Your task to perform on an android device: Do I have any events this weekend? Image 0: 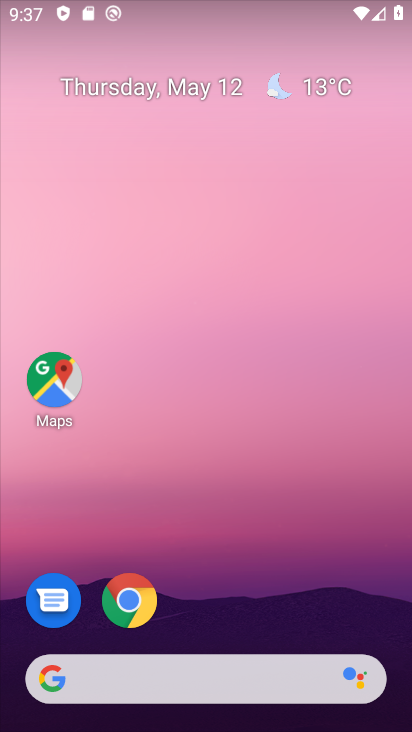
Step 0: drag from (233, 566) to (312, 12)
Your task to perform on an android device: Do I have any events this weekend? Image 1: 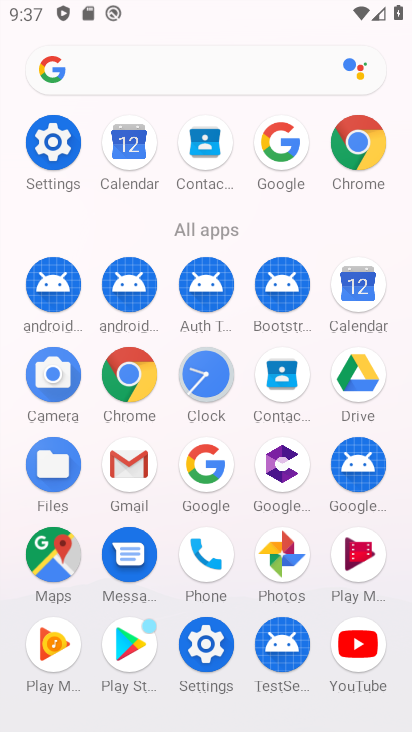
Step 1: click (364, 299)
Your task to perform on an android device: Do I have any events this weekend? Image 2: 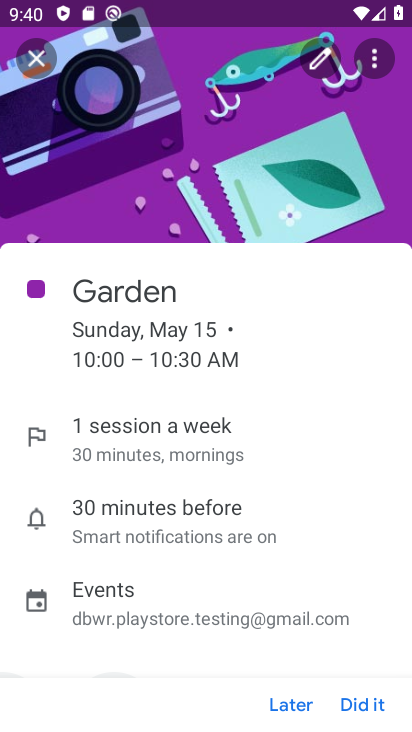
Step 2: click (285, 702)
Your task to perform on an android device: Do I have any events this weekend? Image 3: 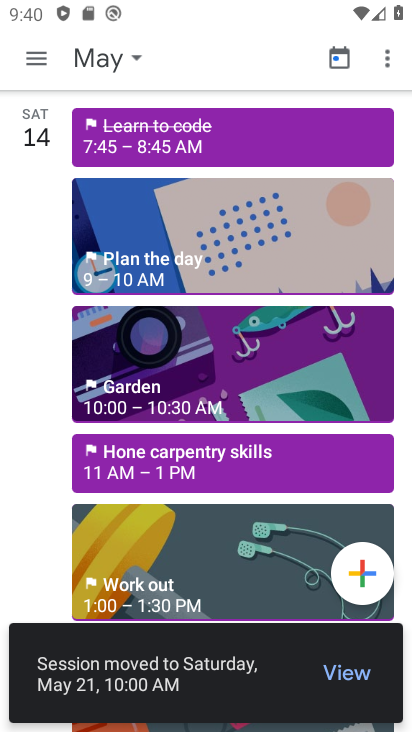
Step 3: drag from (221, 617) to (285, 138)
Your task to perform on an android device: Do I have any events this weekend? Image 4: 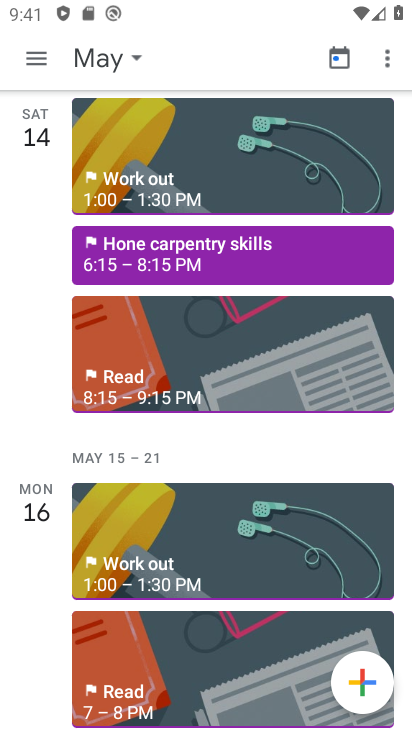
Step 4: drag from (250, 320) to (227, 590)
Your task to perform on an android device: Do I have any events this weekend? Image 5: 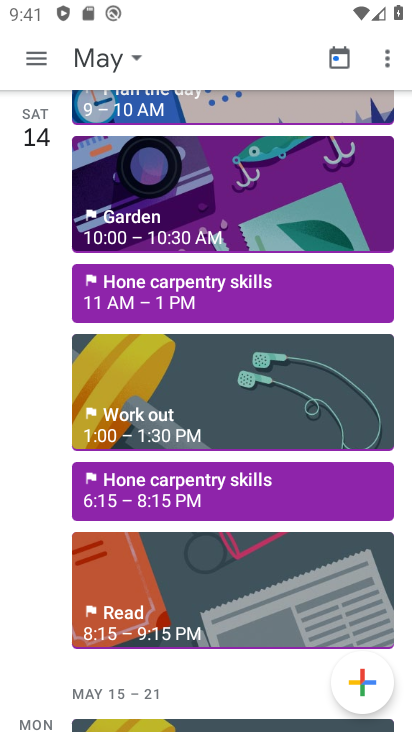
Step 5: click (172, 398)
Your task to perform on an android device: Do I have any events this weekend? Image 6: 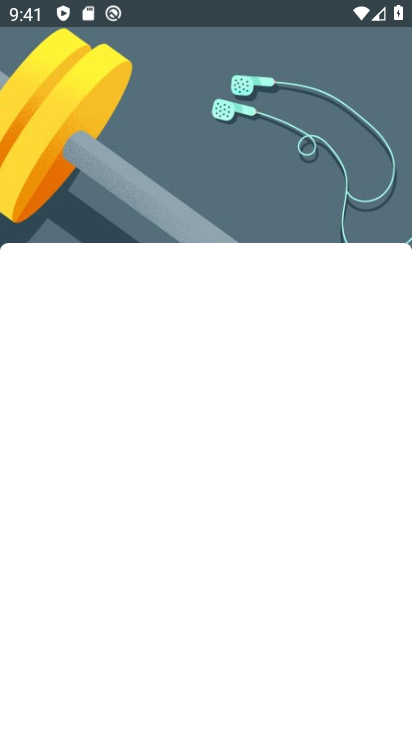
Step 6: task complete